Your task to perform on an android device: Search for Italian restaurants on Maps Image 0: 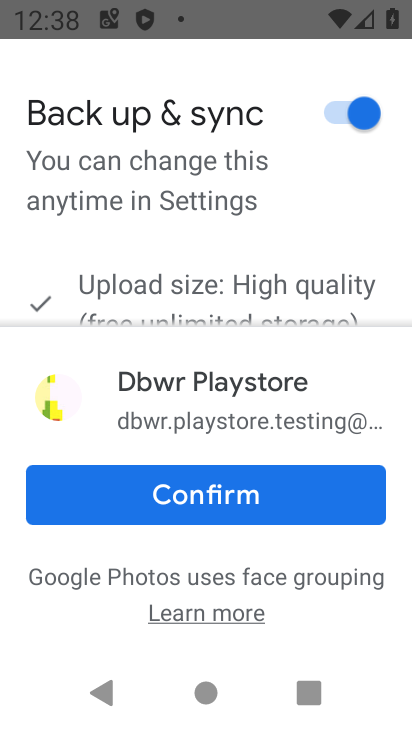
Step 0: press home button
Your task to perform on an android device: Search for Italian restaurants on Maps Image 1: 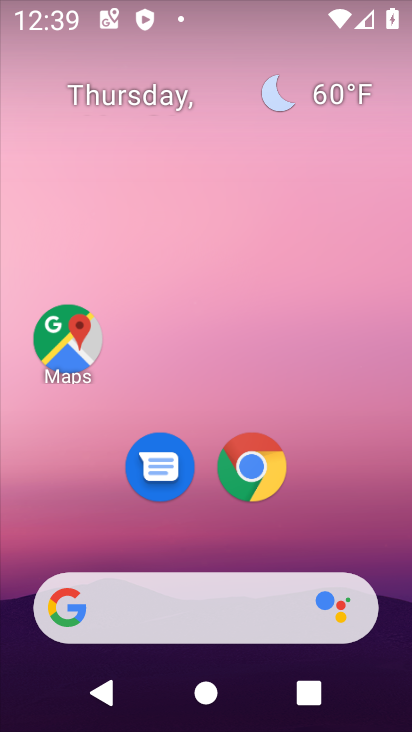
Step 1: click (43, 331)
Your task to perform on an android device: Search for Italian restaurants on Maps Image 2: 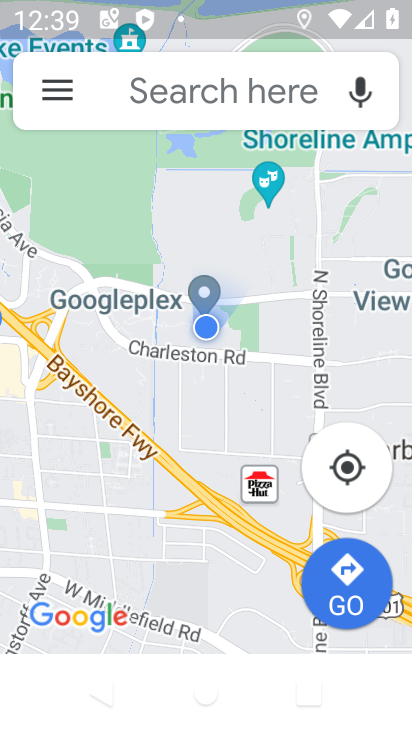
Step 2: click (200, 80)
Your task to perform on an android device: Search for Italian restaurants on Maps Image 3: 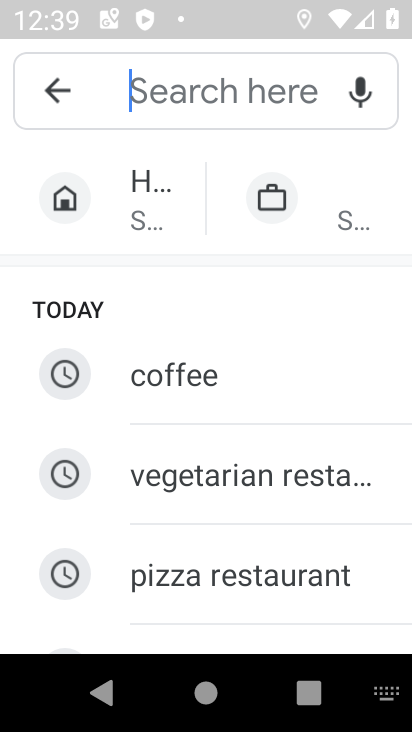
Step 3: type "italian restaurants"
Your task to perform on an android device: Search for Italian restaurants on Maps Image 4: 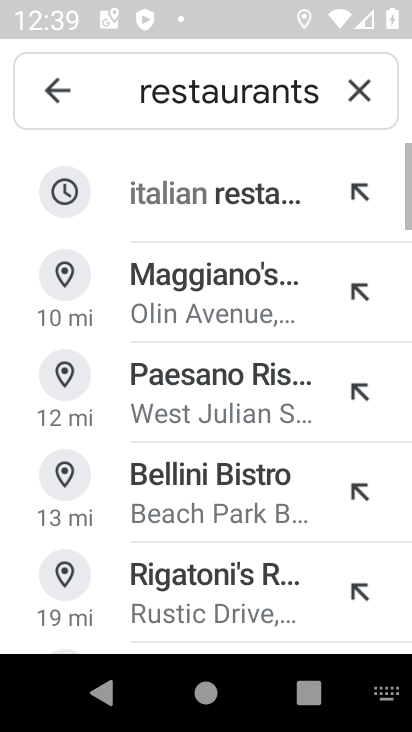
Step 4: click (156, 213)
Your task to perform on an android device: Search for Italian restaurants on Maps Image 5: 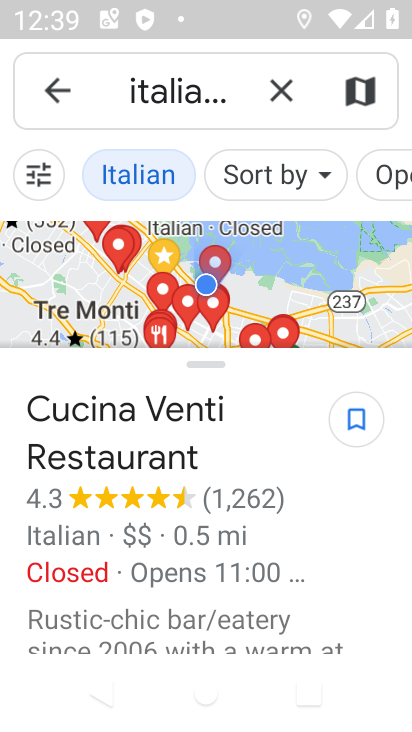
Step 5: task complete